Your task to perform on an android device: change alarm snooze length Image 0: 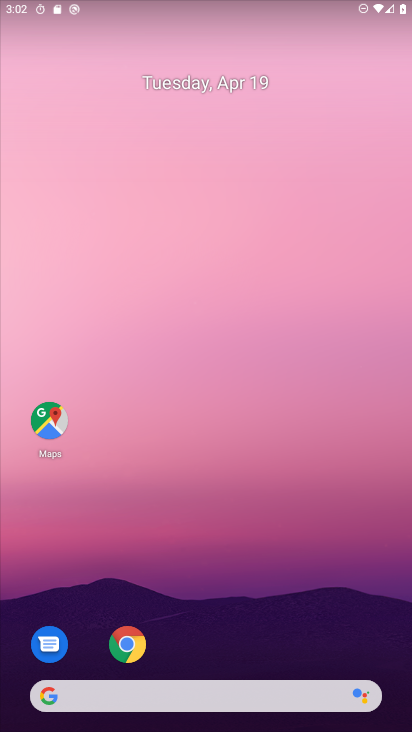
Step 0: drag from (182, 473) to (115, 144)
Your task to perform on an android device: change alarm snooze length Image 1: 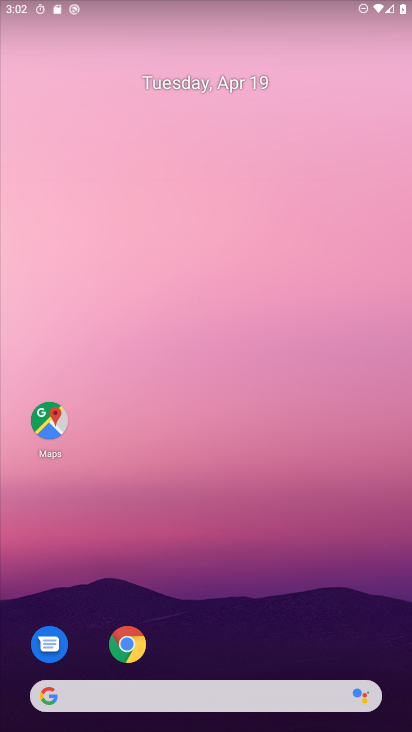
Step 1: drag from (231, 629) to (83, 85)
Your task to perform on an android device: change alarm snooze length Image 2: 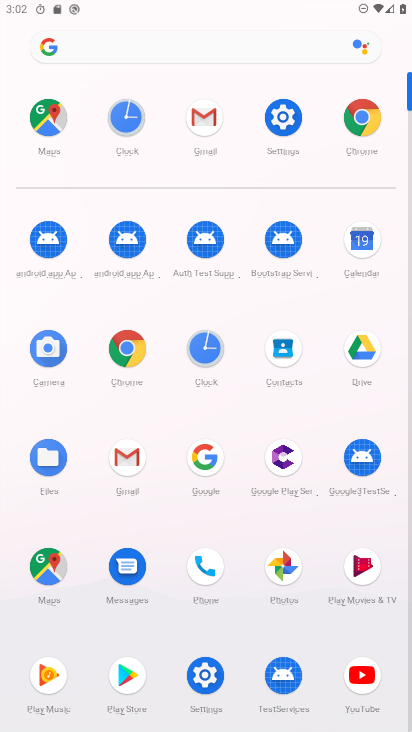
Step 2: click (125, 122)
Your task to perform on an android device: change alarm snooze length Image 3: 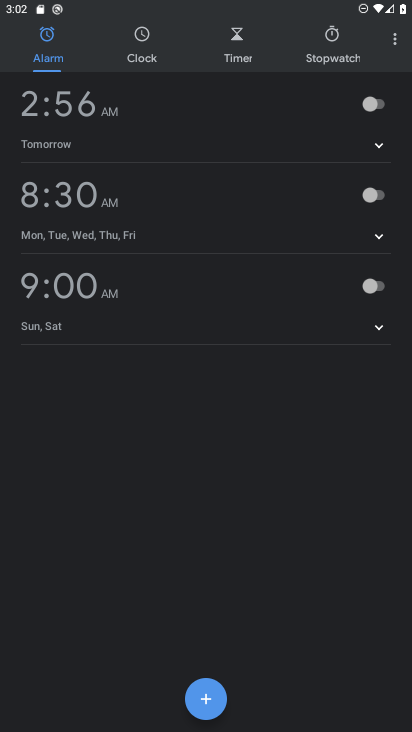
Step 3: click (395, 41)
Your task to perform on an android device: change alarm snooze length Image 4: 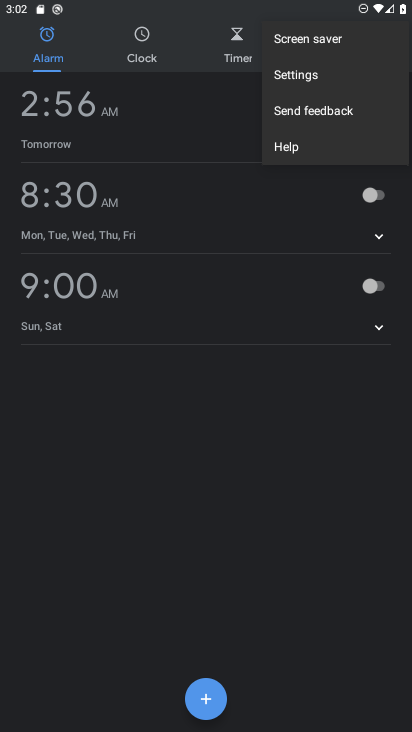
Step 4: click (307, 76)
Your task to perform on an android device: change alarm snooze length Image 5: 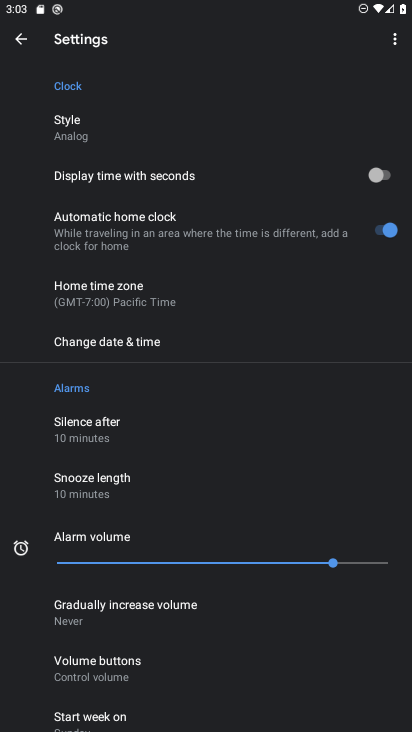
Step 5: click (81, 487)
Your task to perform on an android device: change alarm snooze length Image 6: 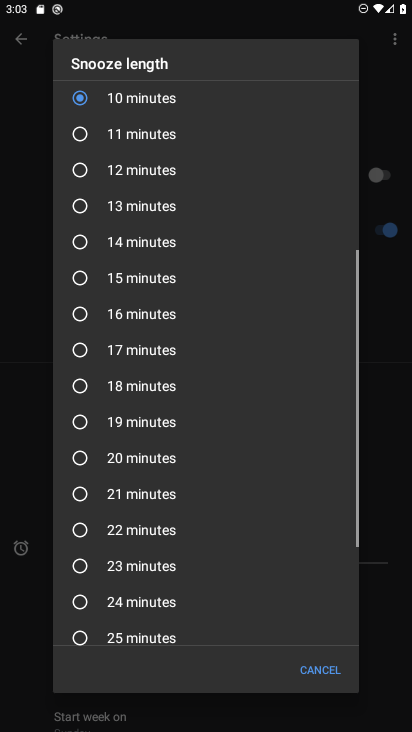
Step 6: click (84, 483)
Your task to perform on an android device: change alarm snooze length Image 7: 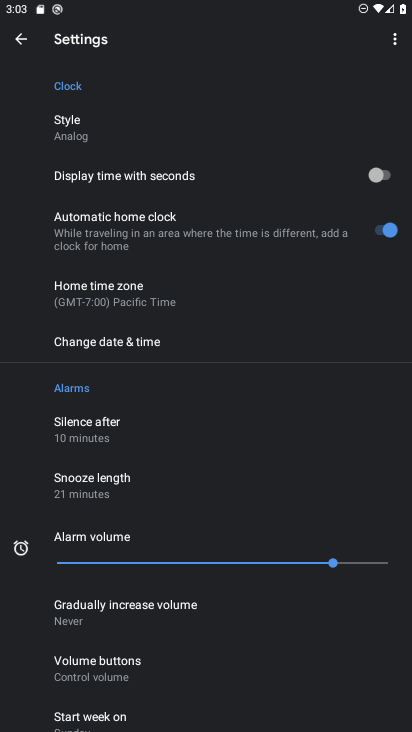
Step 7: task complete